Your task to perform on an android device: change the clock display to digital Image 0: 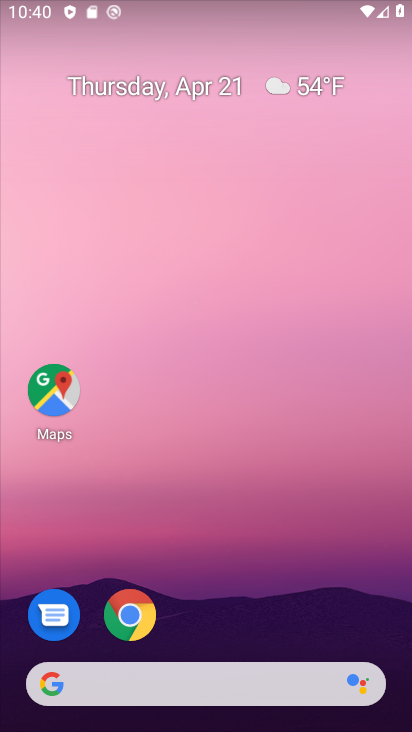
Step 0: drag from (259, 601) to (277, 71)
Your task to perform on an android device: change the clock display to digital Image 1: 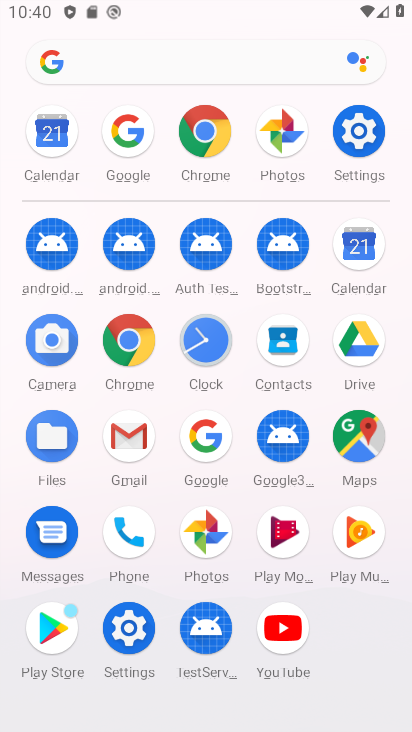
Step 1: click (209, 331)
Your task to perform on an android device: change the clock display to digital Image 2: 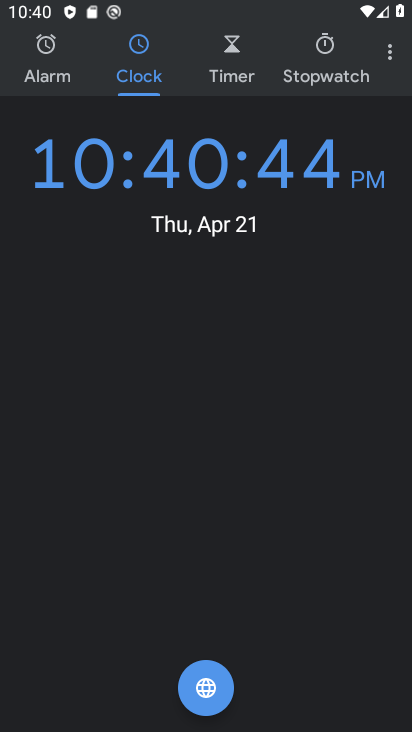
Step 2: click (390, 66)
Your task to perform on an android device: change the clock display to digital Image 3: 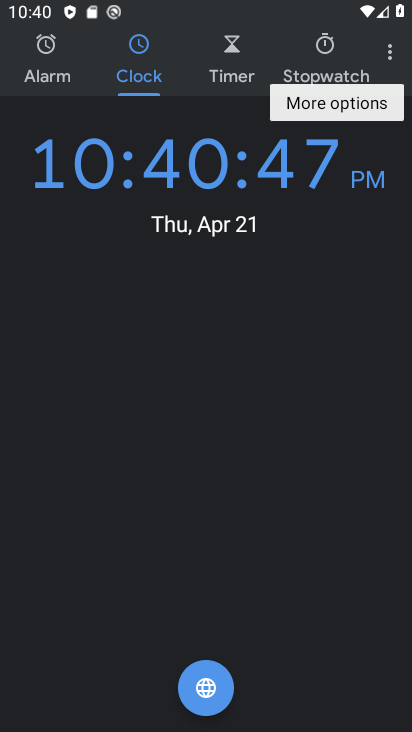
Step 3: click (395, 59)
Your task to perform on an android device: change the clock display to digital Image 4: 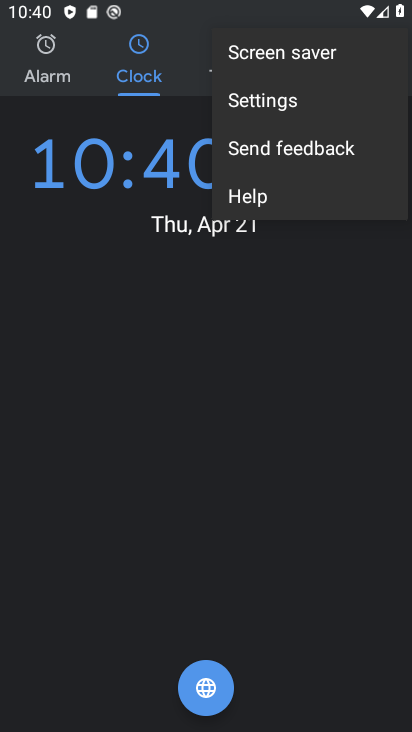
Step 4: click (339, 102)
Your task to perform on an android device: change the clock display to digital Image 5: 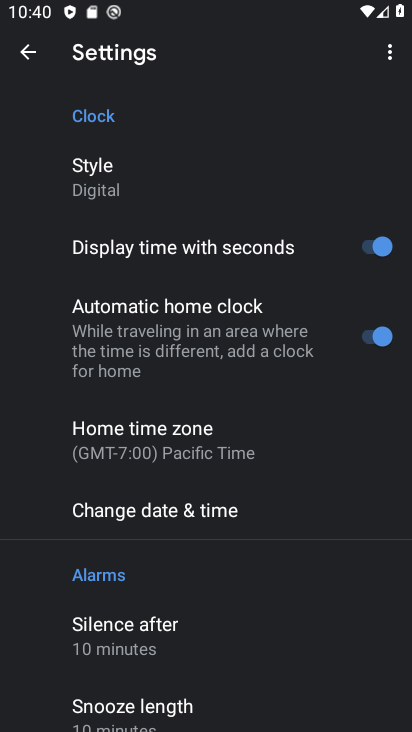
Step 5: click (79, 195)
Your task to perform on an android device: change the clock display to digital Image 6: 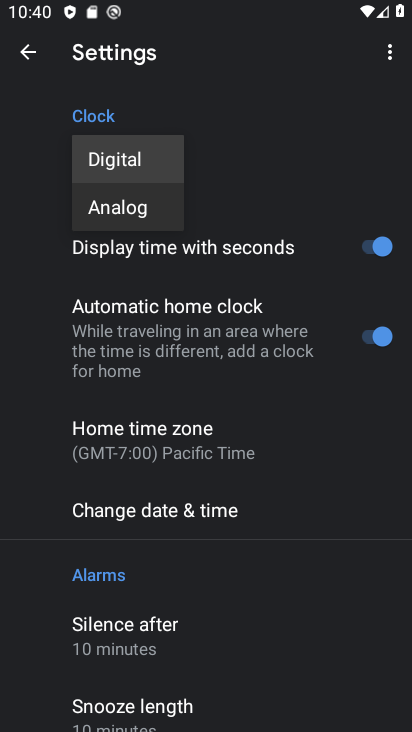
Step 6: click (106, 162)
Your task to perform on an android device: change the clock display to digital Image 7: 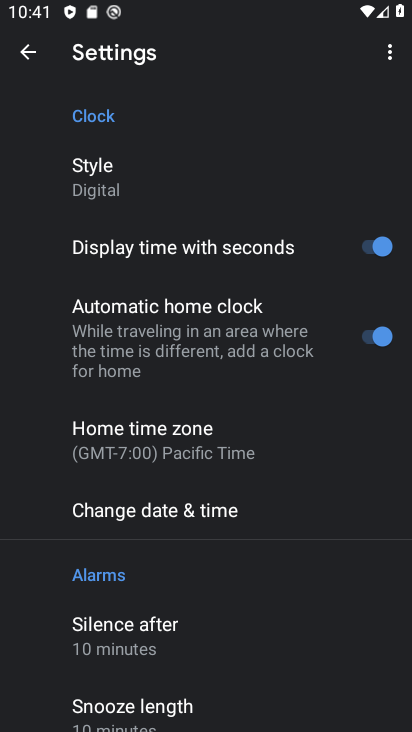
Step 7: task complete